Your task to perform on an android device: make emails show in primary in the gmail app Image 0: 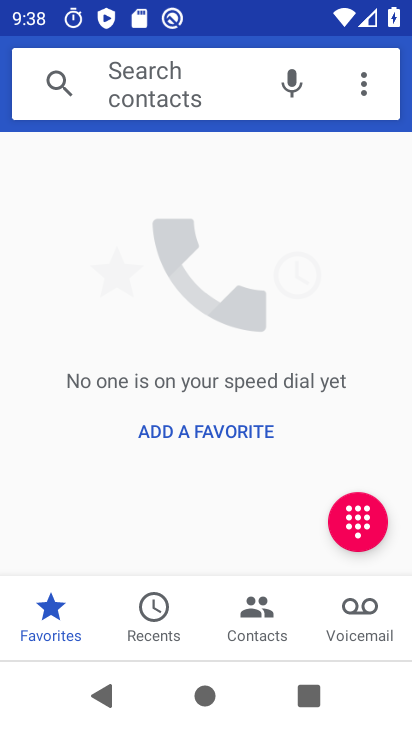
Step 0: press home button
Your task to perform on an android device: make emails show in primary in the gmail app Image 1: 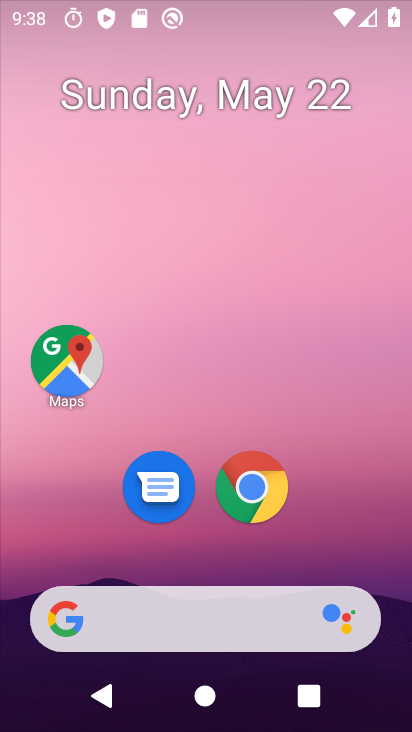
Step 1: drag from (214, 492) to (202, 74)
Your task to perform on an android device: make emails show in primary in the gmail app Image 2: 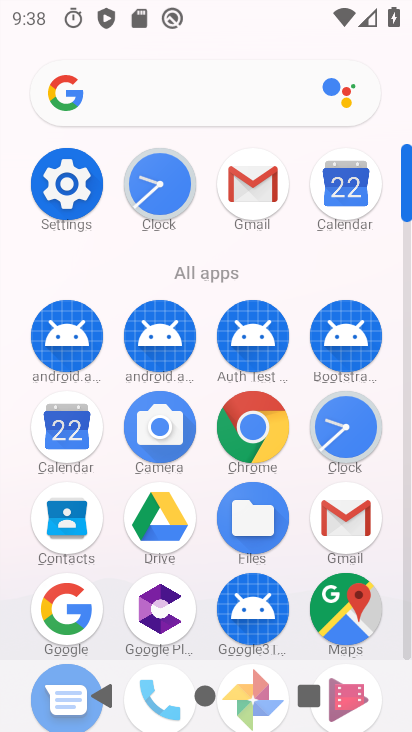
Step 2: click (248, 177)
Your task to perform on an android device: make emails show in primary in the gmail app Image 3: 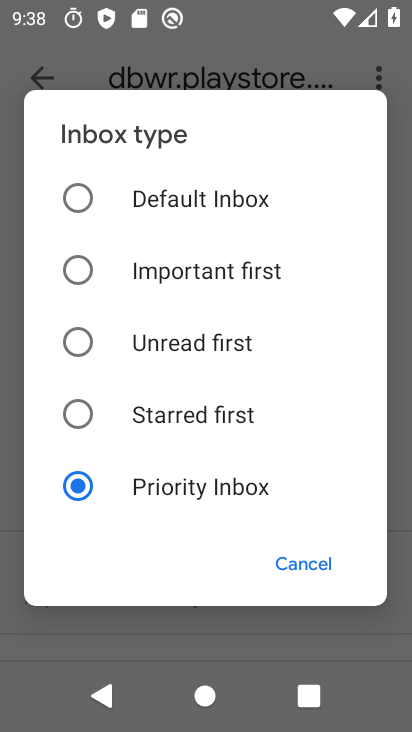
Step 3: click (73, 203)
Your task to perform on an android device: make emails show in primary in the gmail app Image 4: 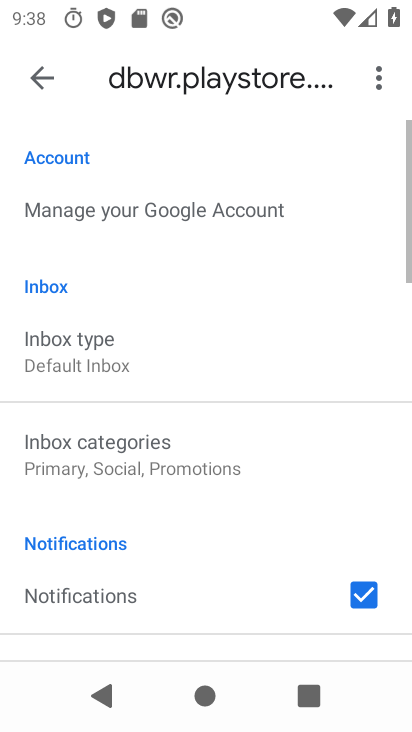
Step 4: click (124, 474)
Your task to perform on an android device: make emails show in primary in the gmail app Image 5: 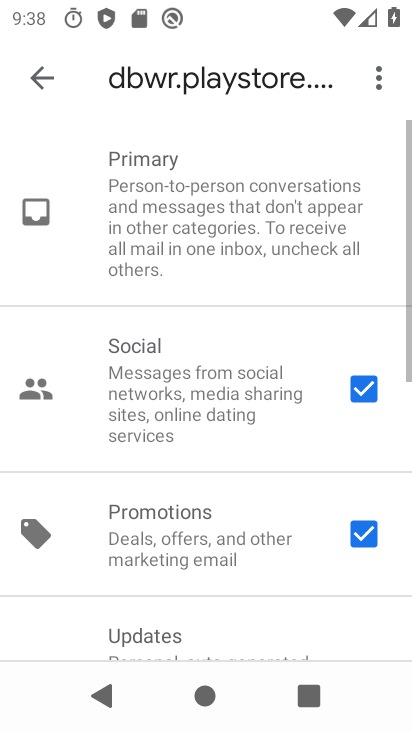
Step 5: click (352, 400)
Your task to perform on an android device: make emails show in primary in the gmail app Image 6: 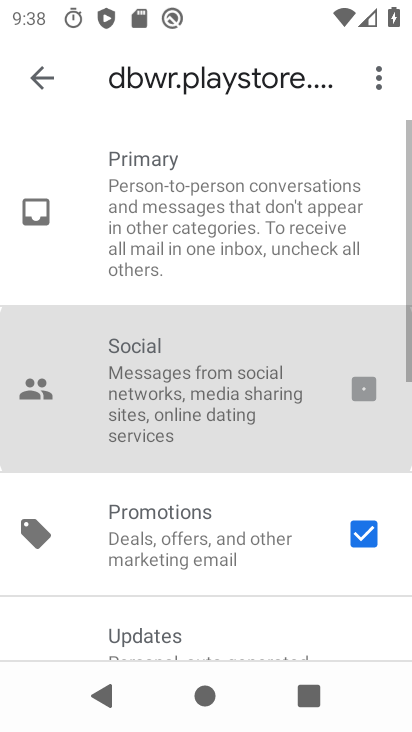
Step 6: click (370, 534)
Your task to perform on an android device: make emails show in primary in the gmail app Image 7: 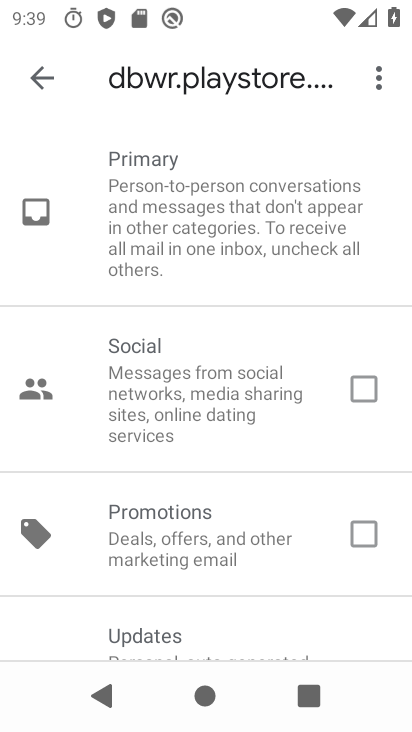
Step 7: task complete